Your task to perform on an android device: turn on bluetooth scan Image 0: 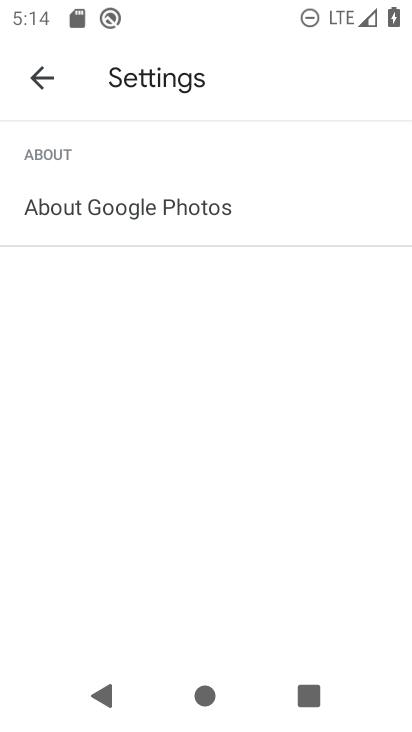
Step 0: press back button
Your task to perform on an android device: turn on bluetooth scan Image 1: 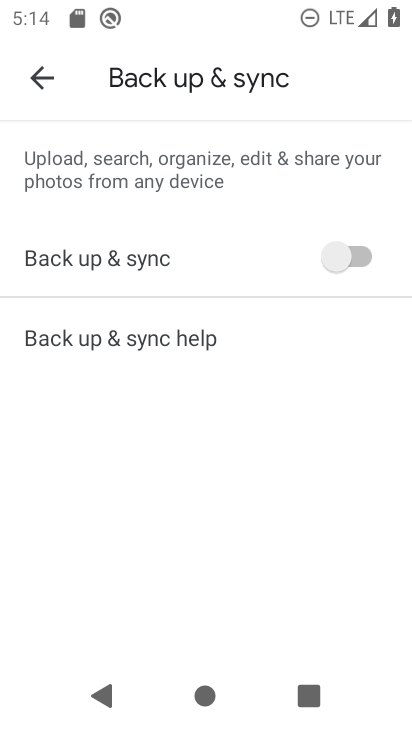
Step 1: press home button
Your task to perform on an android device: turn on bluetooth scan Image 2: 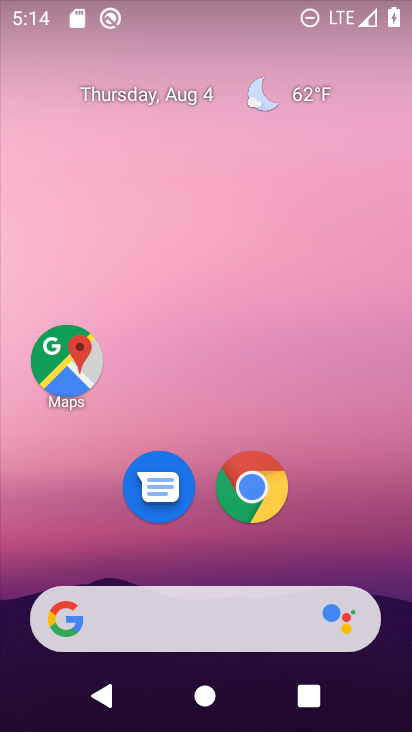
Step 2: drag from (66, 557) to (181, 59)
Your task to perform on an android device: turn on bluetooth scan Image 3: 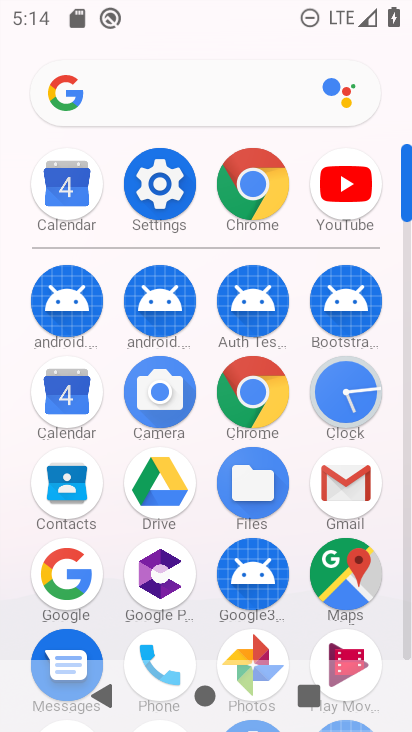
Step 3: click (166, 181)
Your task to perform on an android device: turn on bluetooth scan Image 4: 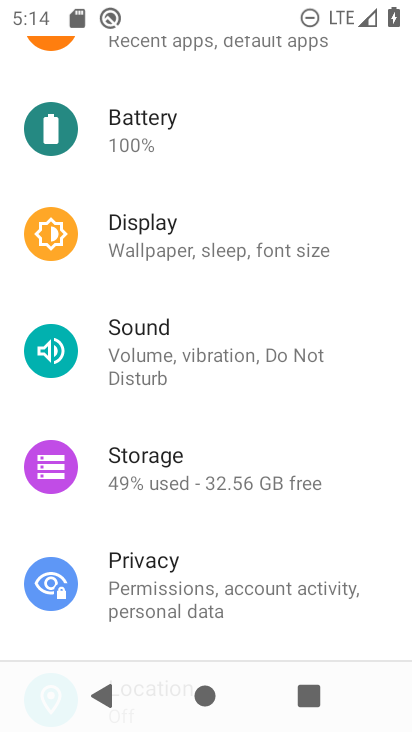
Step 4: drag from (230, 152) to (184, 638)
Your task to perform on an android device: turn on bluetooth scan Image 5: 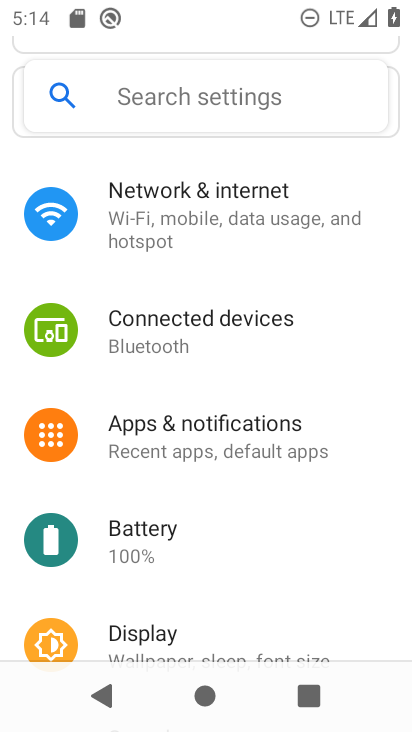
Step 5: click (163, 319)
Your task to perform on an android device: turn on bluetooth scan Image 6: 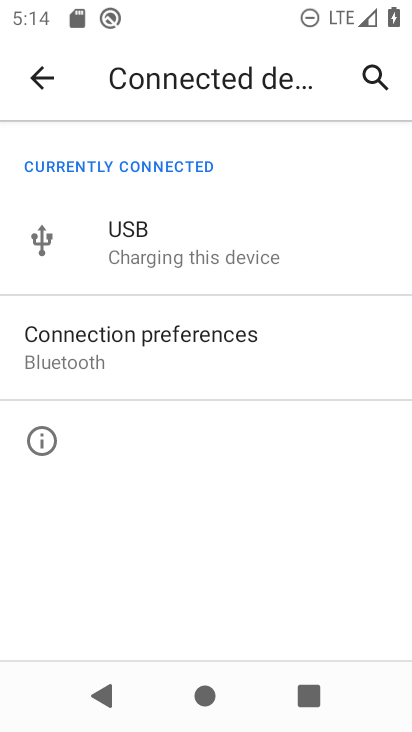
Step 6: click (151, 362)
Your task to perform on an android device: turn on bluetooth scan Image 7: 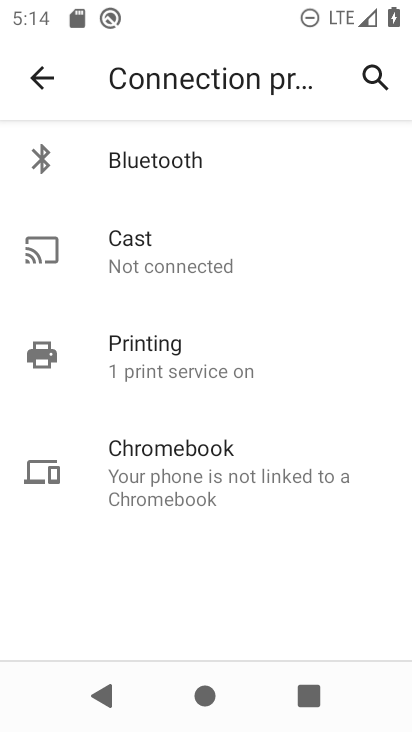
Step 7: click (135, 154)
Your task to perform on an android device: turn on bluetooth scan Image 8: 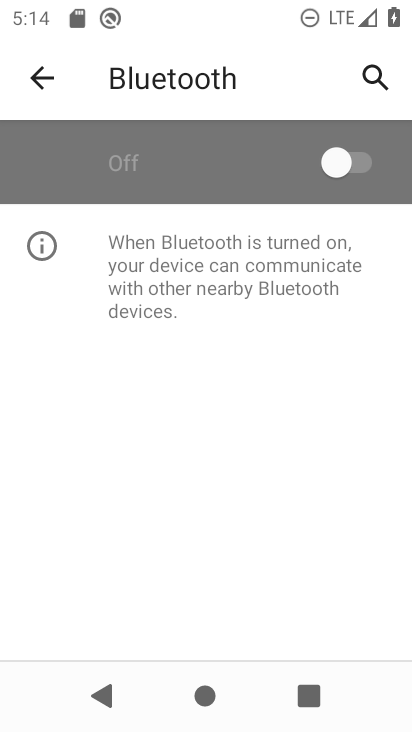
Step 8: click (357, 155)
Your task to perform on an android device: turn on bluetooth scan Image 9: 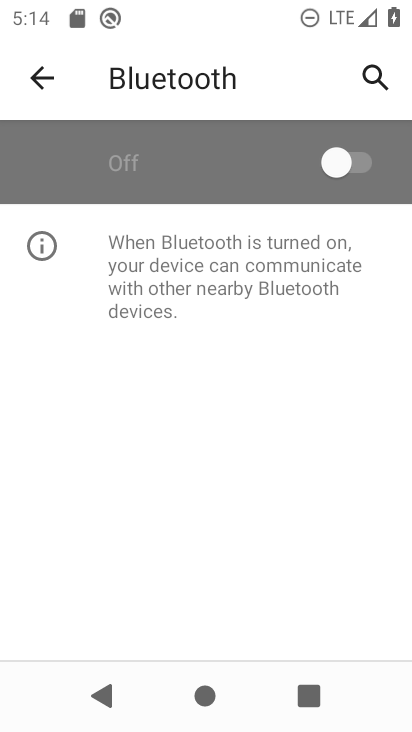
Step 9: task complete